Your task to perform on an android device: toggle airplane mode Image 0: 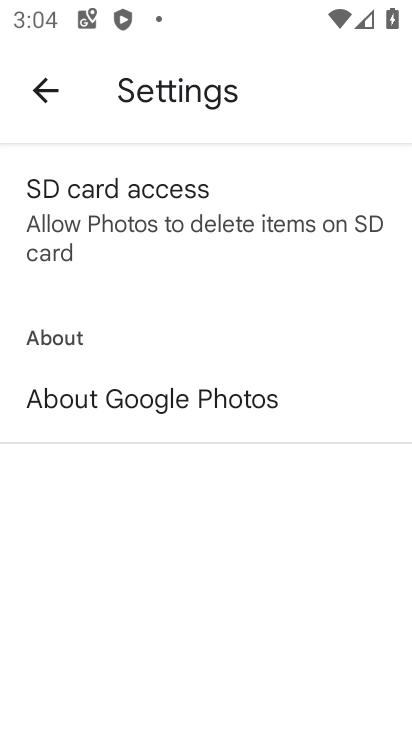
Step 0: press home button
Your task to perform on an android device: toggle airplane mode Image 1: 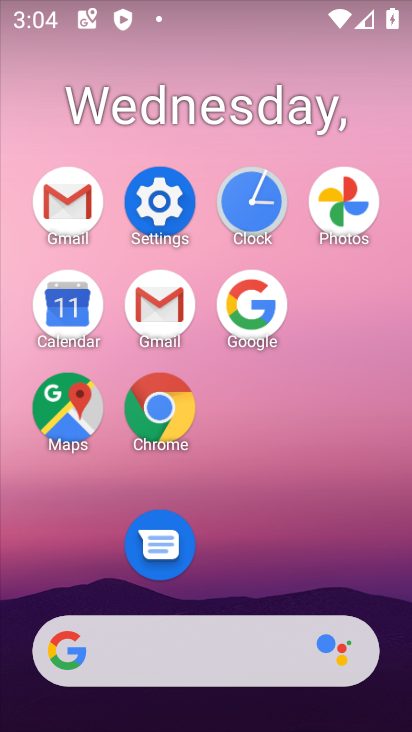
Step 1: click (167, 211)
Your task to perform on an android device: toggle airplane mode Image 2: 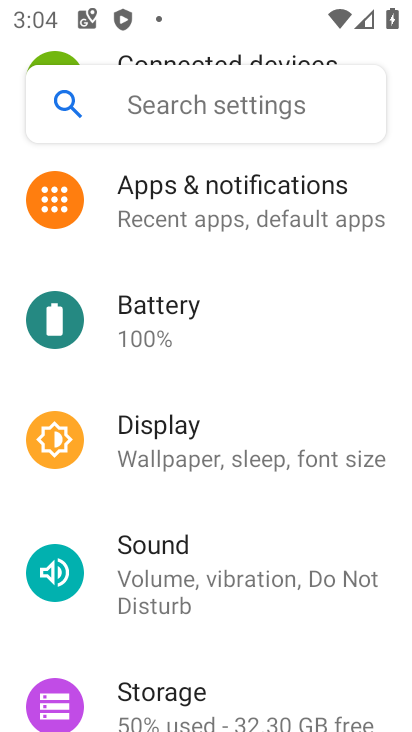
Step 2: drag from (306, 189) to (284, 602)
Your task to perform on an android device: toggle airplane mode Image 3: 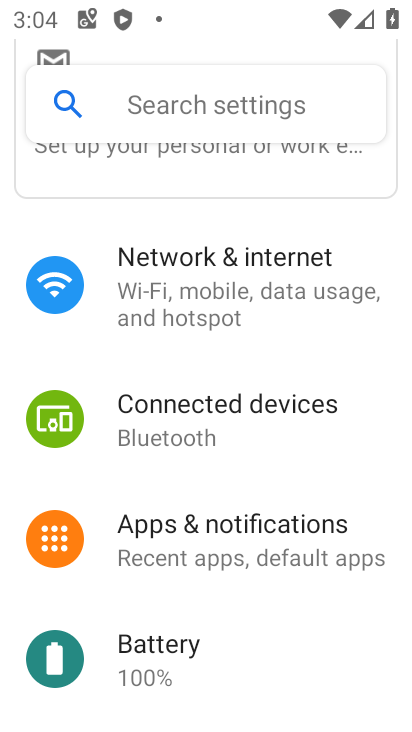
Step 3: click (240, 306)
Your task to perform on an android device: toggle airplane mode Image 4: 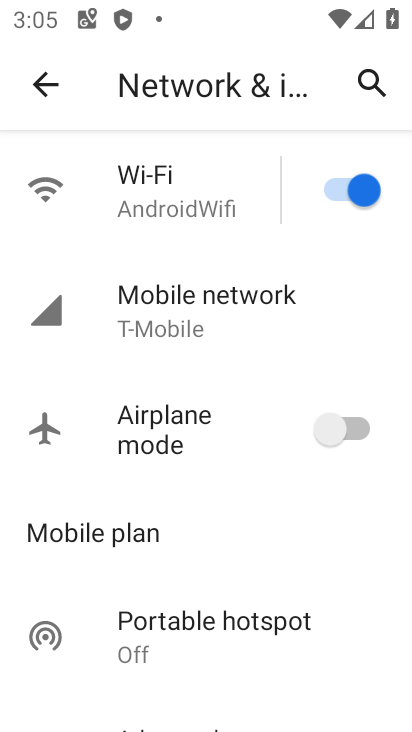
Step 4: click (328, 438)
Your task to perform on an android device: toggle airplane mode Image 5: 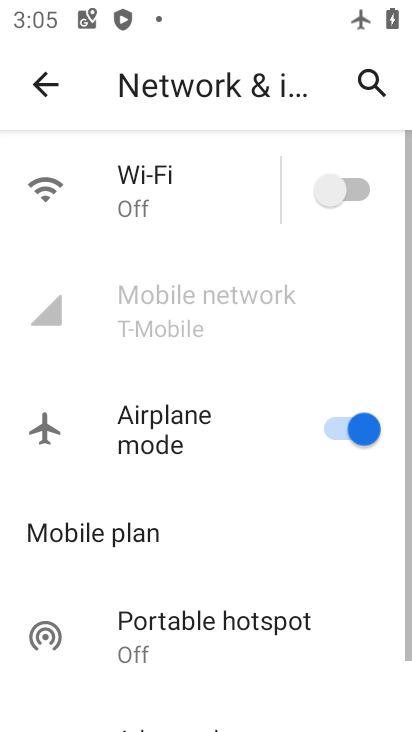
Step 5: task complete